Your task to perform on an android device: Open Google Chrome and click the shortcut for Amazon.com Image 0: 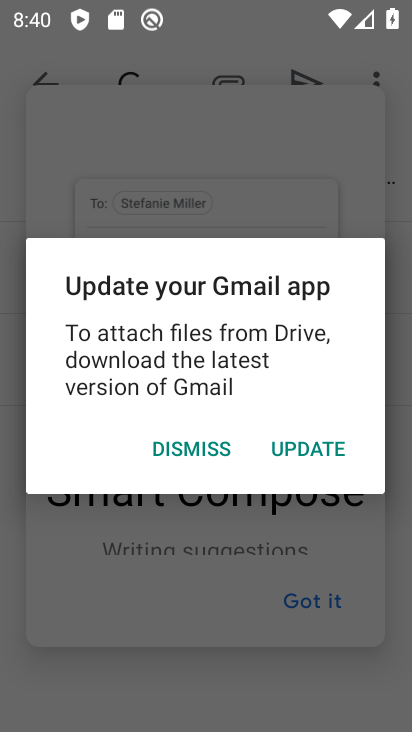
Step 0: press home button
Your task to perform on an android device: Open Google Chrome and click the shortcut for Amazon.com Image 1: 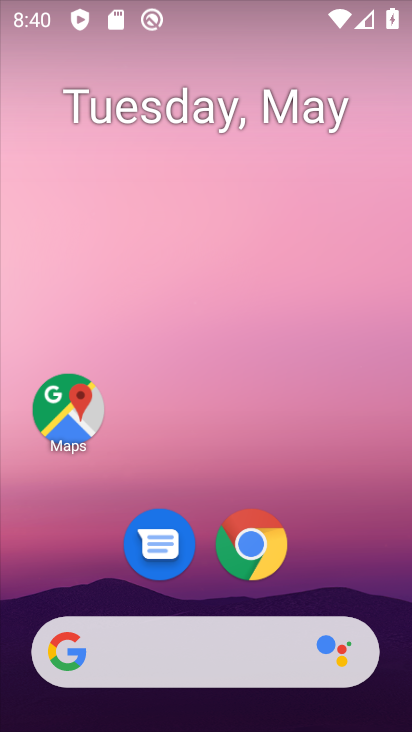
Step 1: drag from (350, 548) to (316, 153)
Your task to perform on an android device: Open Google Chrome and click the shortcut for Amazon.com Image 2: 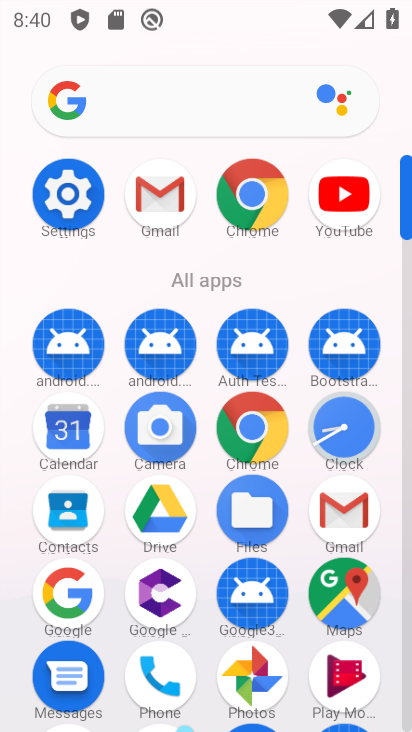
Step 2: click (243, 439)
Your task to perform on an android device: Open Google Chrome and click the shortcut for Amazon.com Image 3: 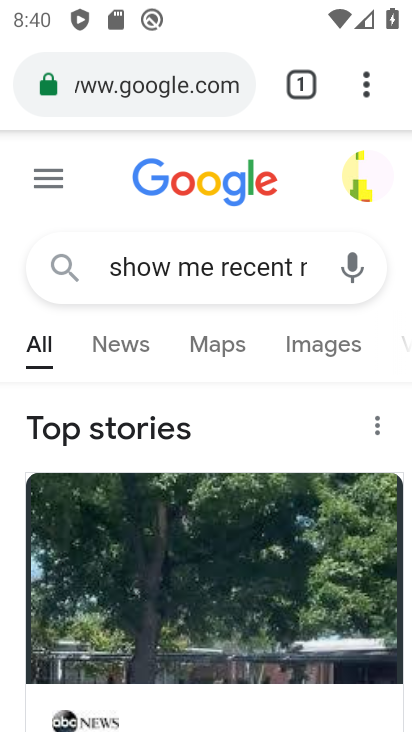
Step 3: click (312, 88)
Your task to perform on an android device: Open Google Chrome and click the shortcut for Amazon.com Image 4: 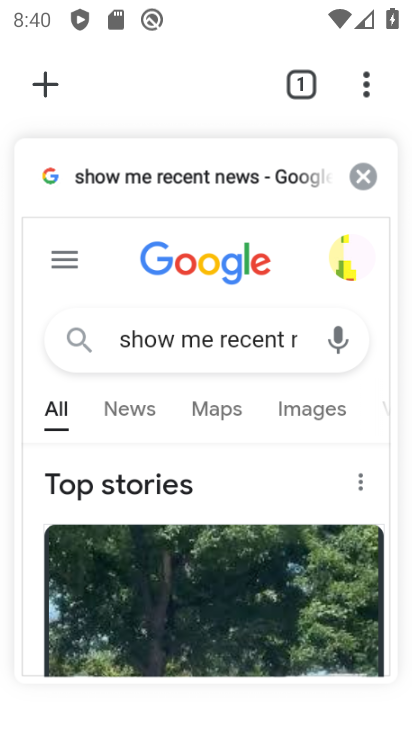
Step 4: click (57, 91)
Your task to perform on an android device: Open Google Chrome and click the shortcut for Amazon.com Image 5: 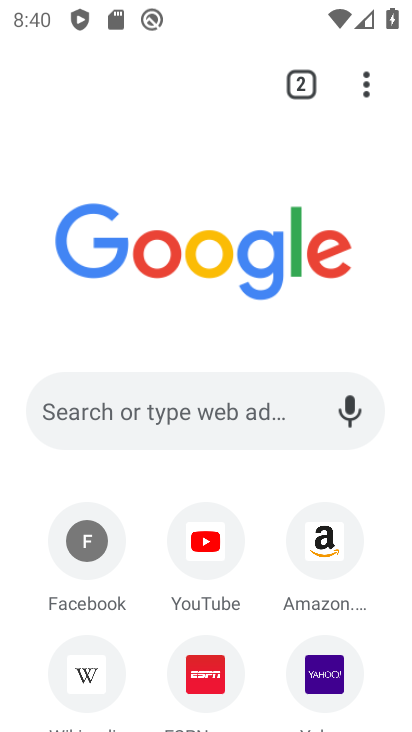
Step 5: click (333, 554)
Your task to perform on an android device: Open Google Chrome and click the shortcut for Amazon.com Image 6: 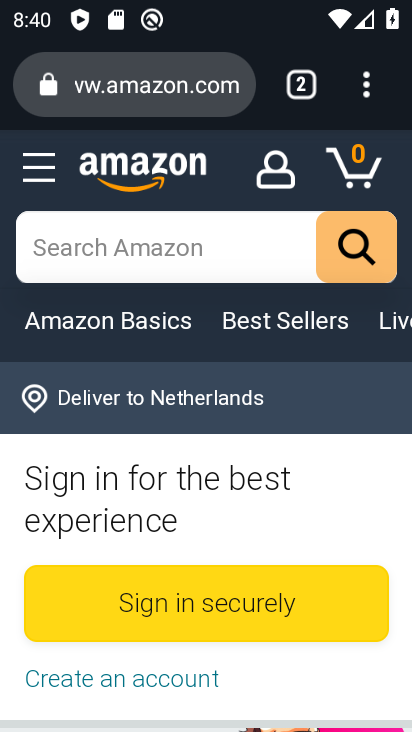
Step 6: task complete